Your task to perform on an android device: Do I have any events this weekend? Image 0: 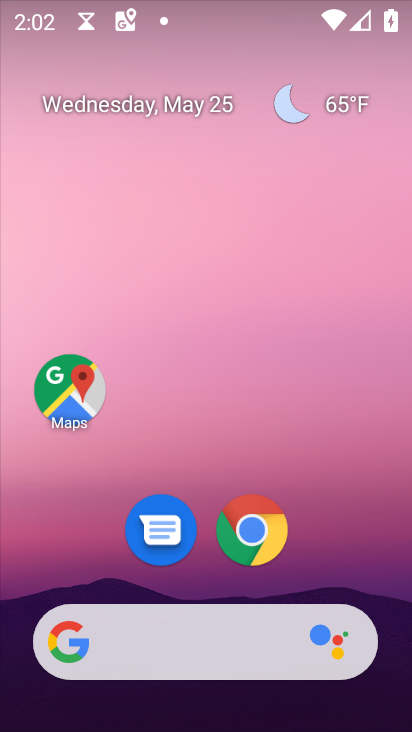
Step 0: drag from (350, 387) to (350, 333)
Your task to perform on an android device: Do I have any events this weekend? Image 1: 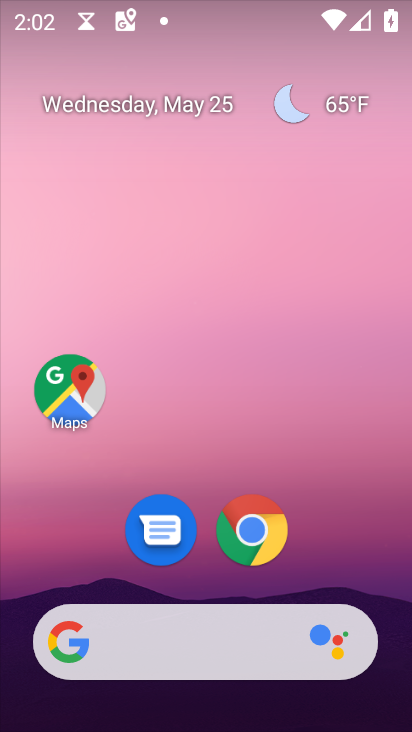
Step 1: drag from (280, 553) to (284, 201)
Your task to perform on an android device: Do I have any events this weekend? Image 2: 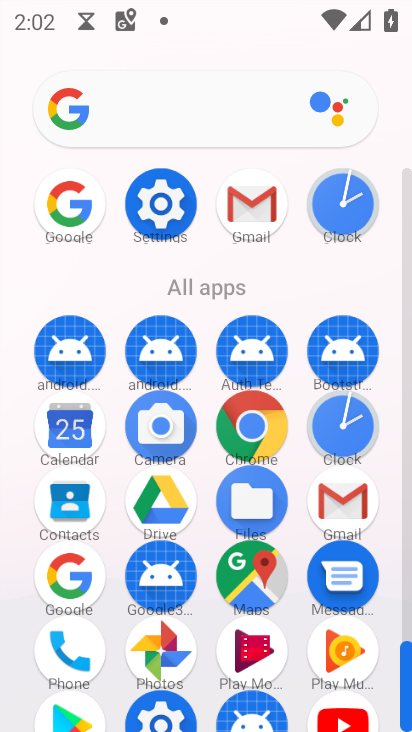
Step 2: click (59, 437)
Your task to perform on an android device: Do I have any events this weekend? Image 3: 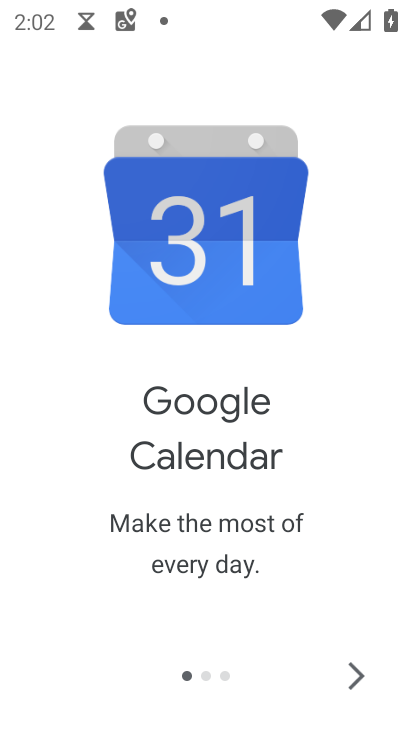
Step 3: click (337, 675)
Your task to perform on an android device: Do I have any events this weekend? Image 4: 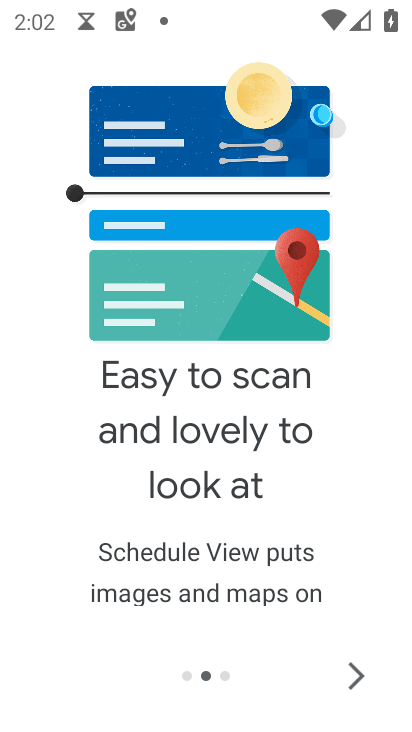
Step 4: click (329, 668)
Your task to perform on an android device: Do I have any events this weekend? Image 5: 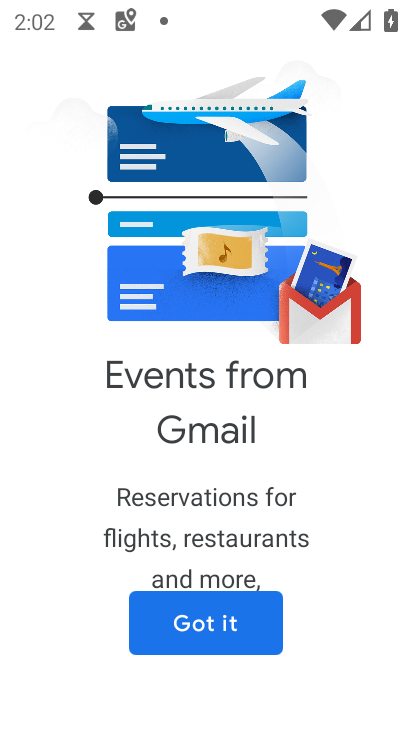
Step 5: click (329, 668)
Your task to perform on an android device: Do I have any events this weekend? Image 6: 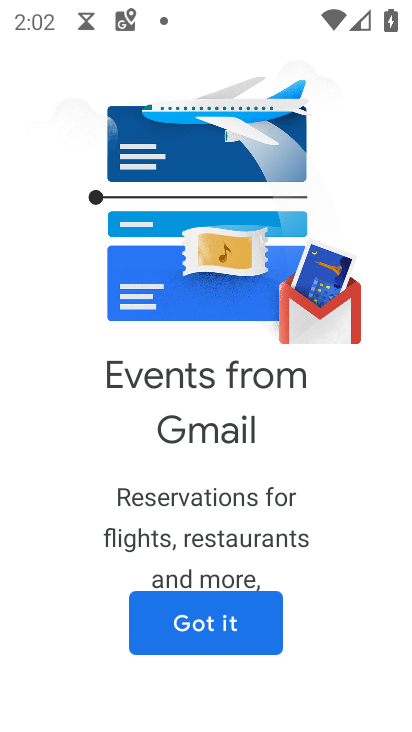
Step 6: click (239, 626)
Your task to perform on an android device: Do I have any events this weekend? Image 7: 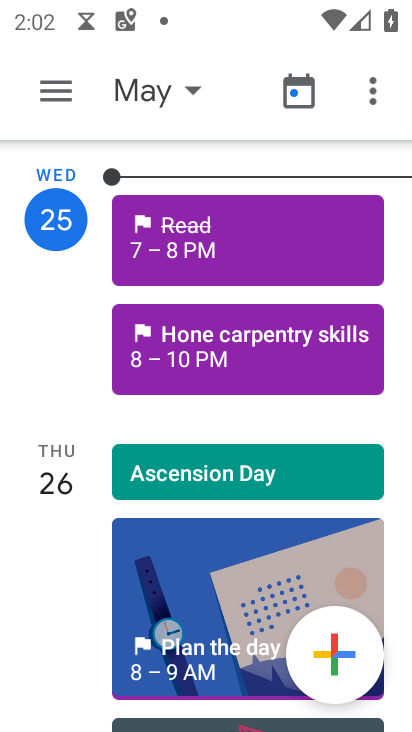
Step 7: click (55, 99)
Your task to perform on an android device: Do I have any events this weekend? Image 8: 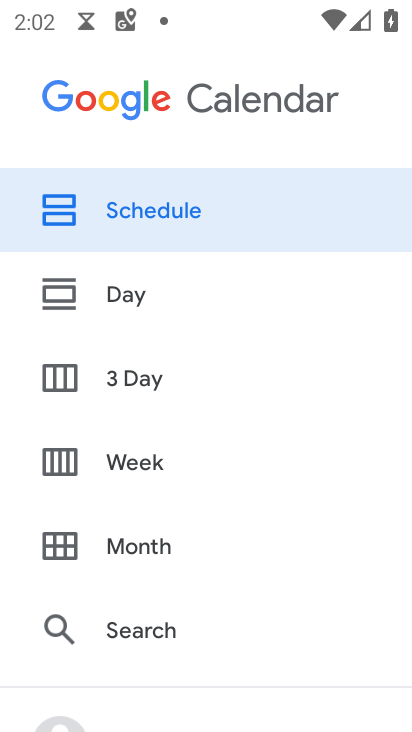
Step 8: click (121, 456)
Your task to perform on an android device: Do I have any events this weekend? Image 9: 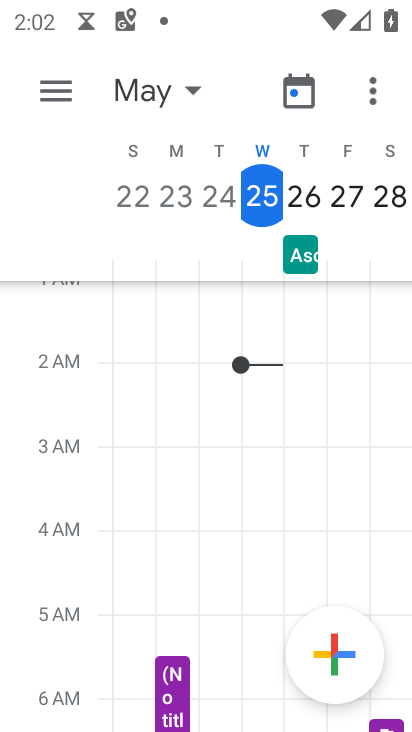
Step 9: task complete